Your task to perform on an android device: visit the assistant section in the google photos Image 0: 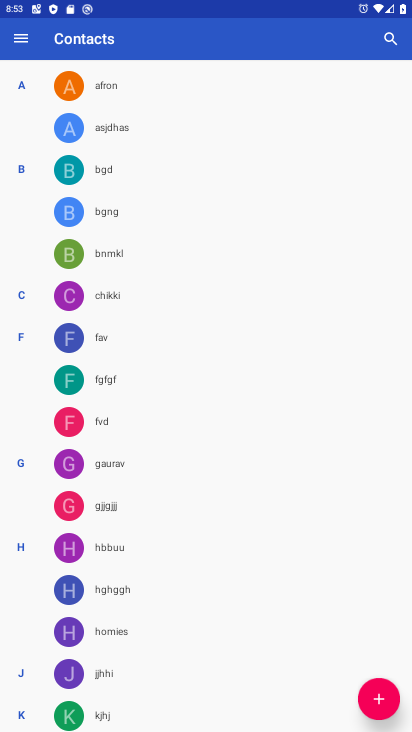
Step 0: press home button
Your task to perform on an android device: visit the assistant section in the google photos Image 1: 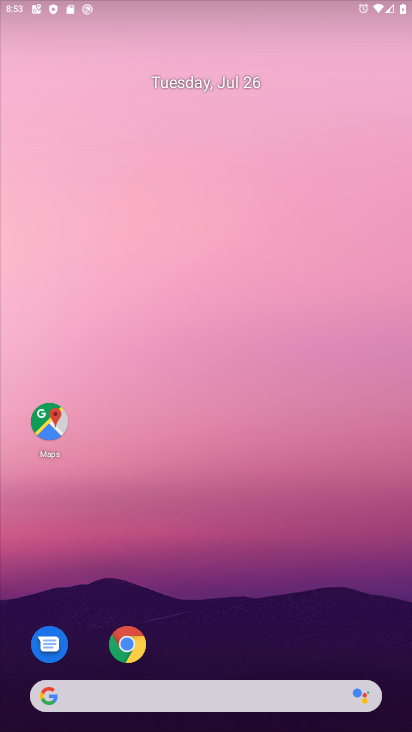
Step 1: drag from (202, 677) to (217, 229)
Your task to perform on an android device: visit the assistant section in the google photos Image 2: 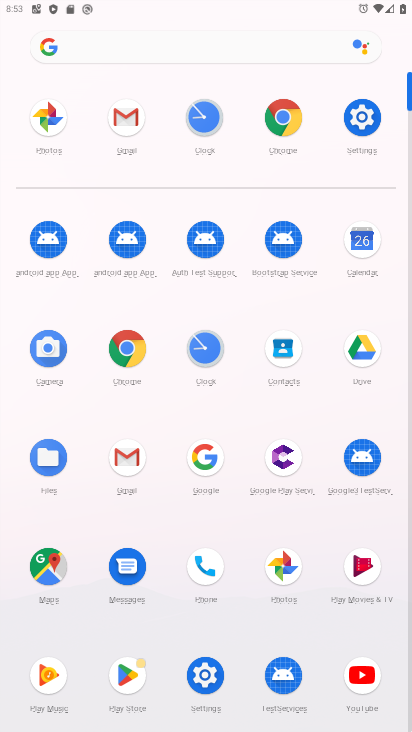
Step 2: drag from (154, 596) to (189, 209)
Your task to perform on an android device: visit the assistant section in the google photos Image 3: 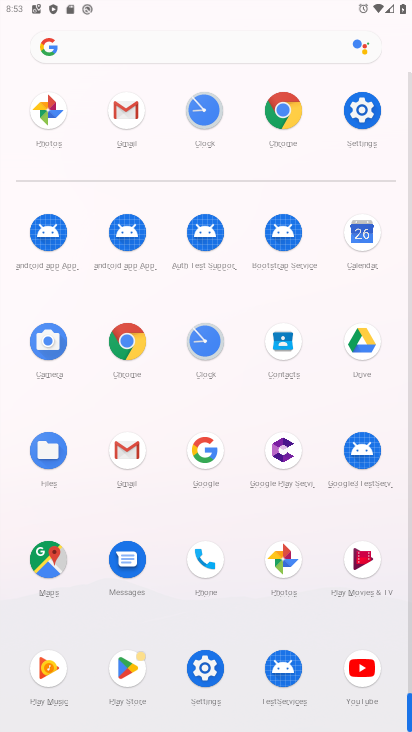
Step 3: click (286, 548)
Your task to perform on an android device: visit the assistant section in the google photos Image 4: 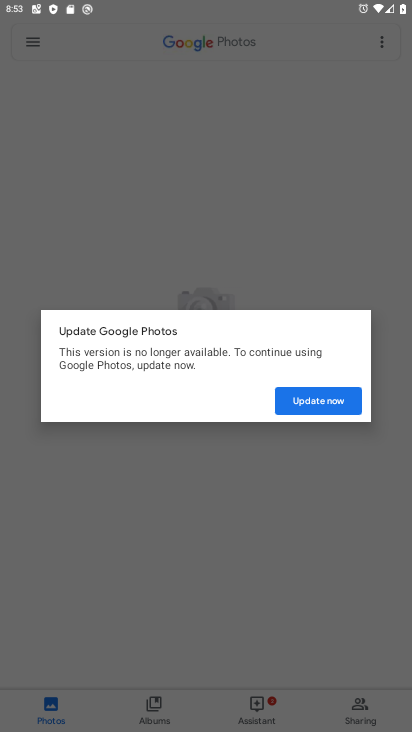
Step 4: click (284, 398)
Your task to perform on an android device: visit the assistant section in the google photos Image 5: 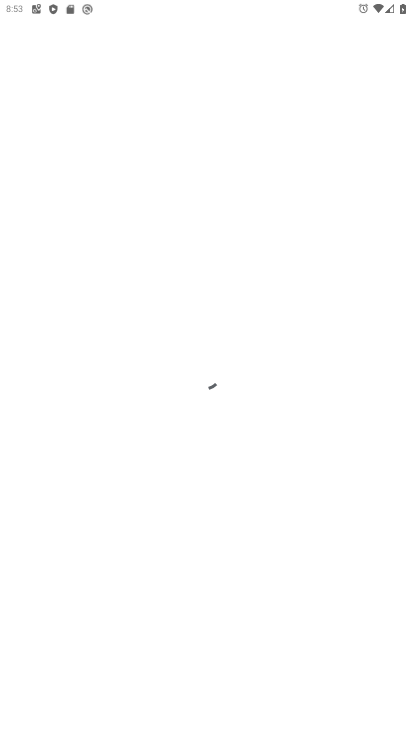
Step 5: press back button
Your task to perform on an android device: visit the assistant section in the google photos Image 6: 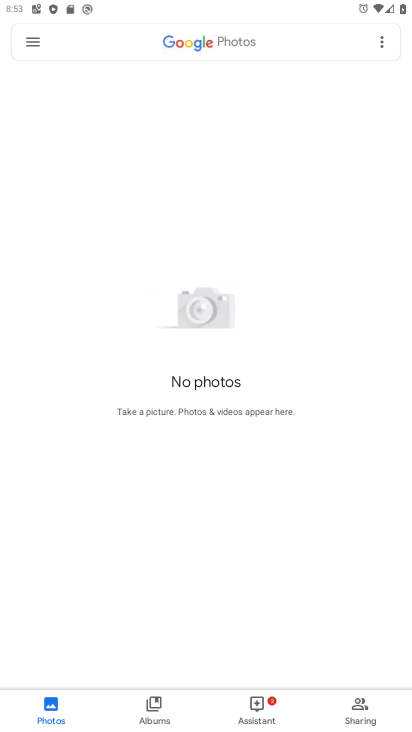
Step 6: click (266, 709)
Your task to perform on an android device: visit the assistant section in the google photos Image 7: 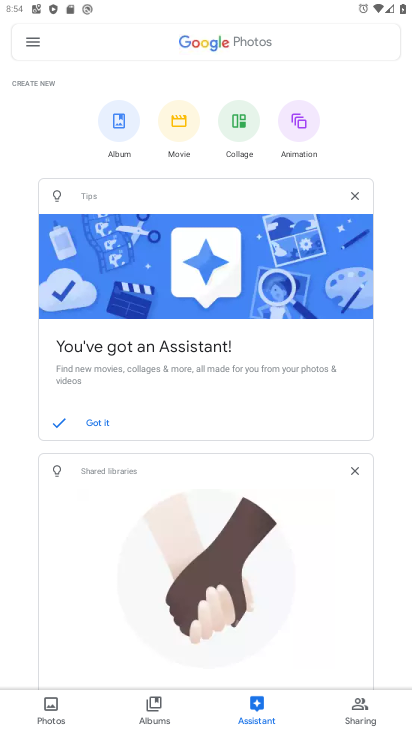
Step 7: task complete